Your task to perform on an android device: clear history in the chrome app Image 0: 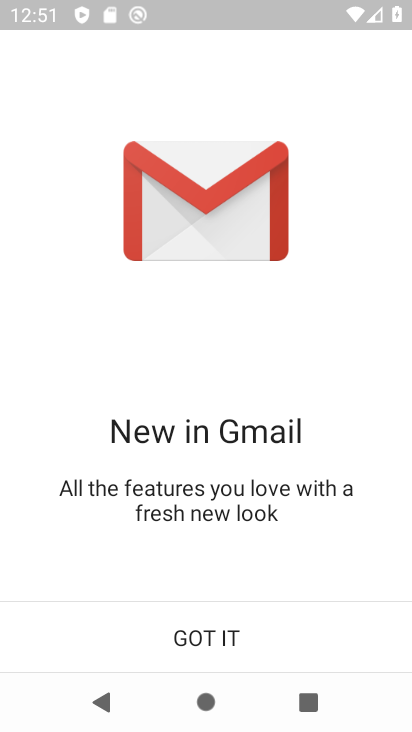
Step 0: press home button
Your task to perform on an android device: clear history in the chrome app Image 1: 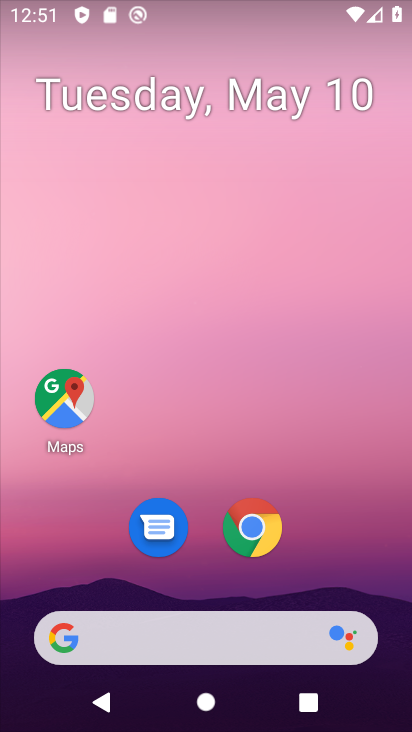
Step 1: click (253, 525)
Your task to perform on an android device: clear history in the chrome app Image 2: 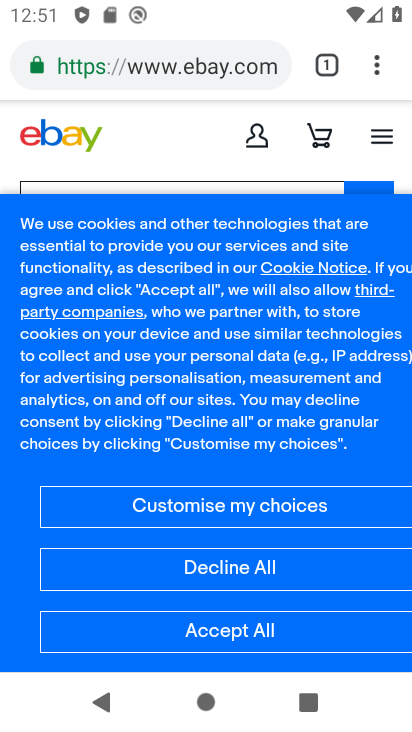
Step 2: drag from (378, 65) to (249, 394)
Your task to perform on an android device: clear history in the chrome app Image 3: 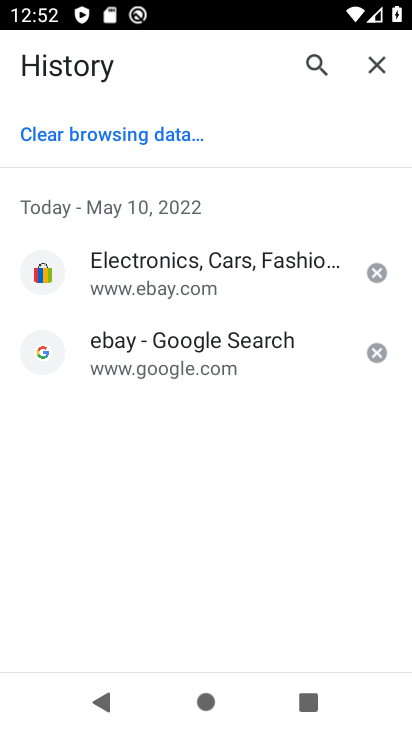
Step 3: click (91, 137)
Your task to perform on an android device: clear history in the chrome app Image 4: 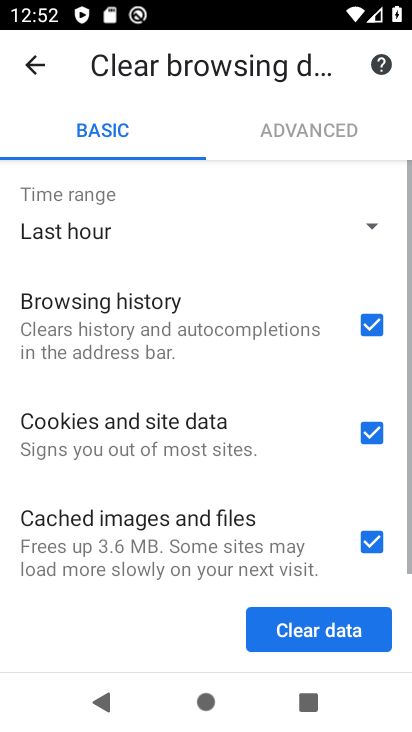
Step 4: click (373, 429)
Your task to perform on an android device: clear history in the chrome app Image 5: 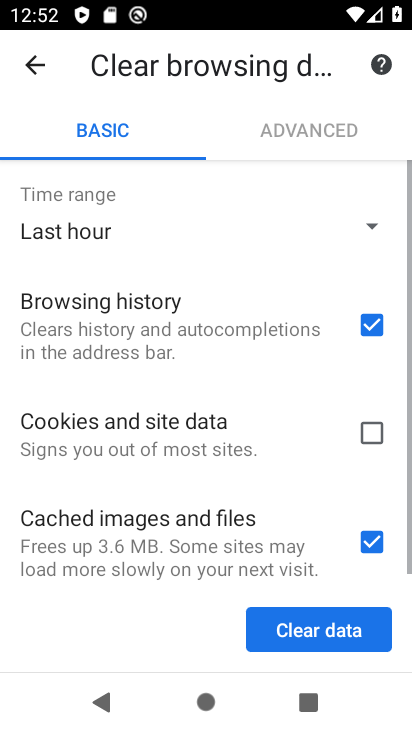
Step 5: click (373, 540)
Your task to perform on an android device: clear history in the chrome app Image 6: 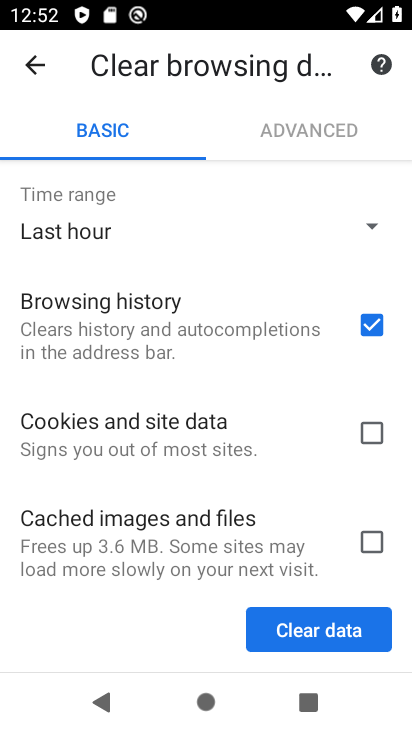
Step 6: click (329, 626)
Your task to perform on an android device: clear history in the chrome app Image 7: 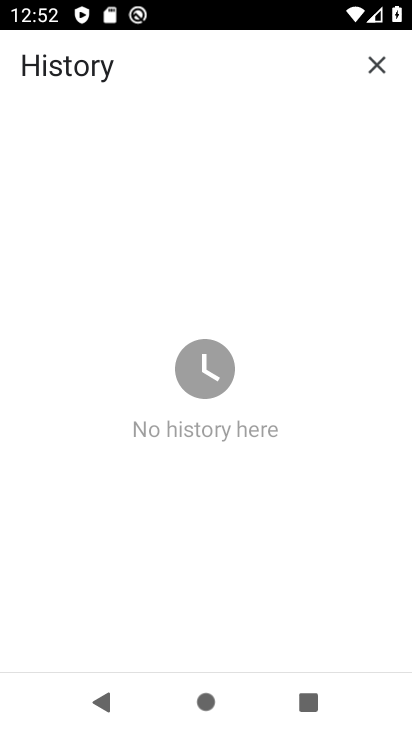
Step 7: task complete